Your task to perform on an android device: Turn on the flashlight Image 0: 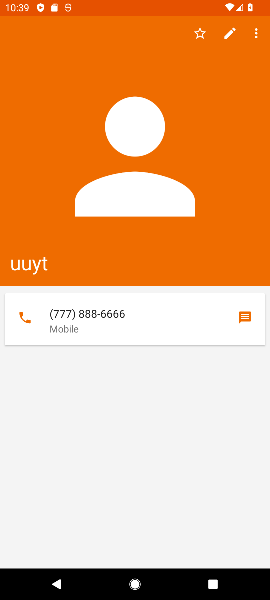
Step 0: press home button
Your task to perform on an android device: Turn on the flashlight Image 1: 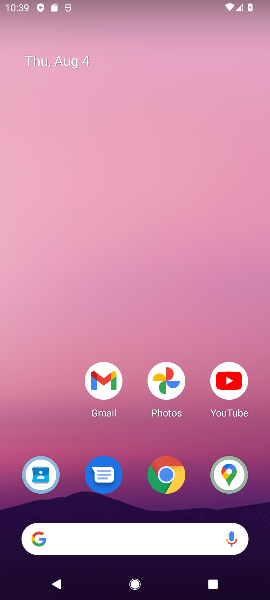
Step 1: drag from (134, 7) to (137, 450)
Your task to perform on an android device: Turn on the flashlight Image 2: 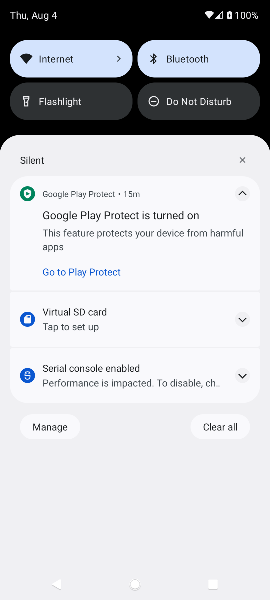
Step 2: click (94, 92)
Your task to perform on an android device: Turn on the flashlight Image 3: 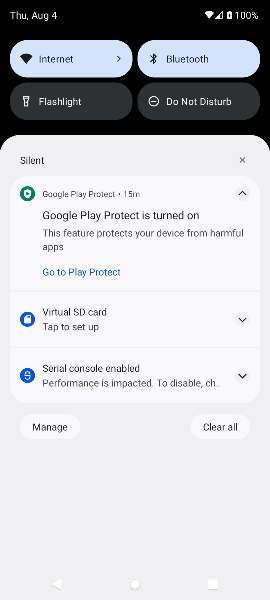
Step 3: task complete